Your task to perform on an android device: Open the web browser Image 0: 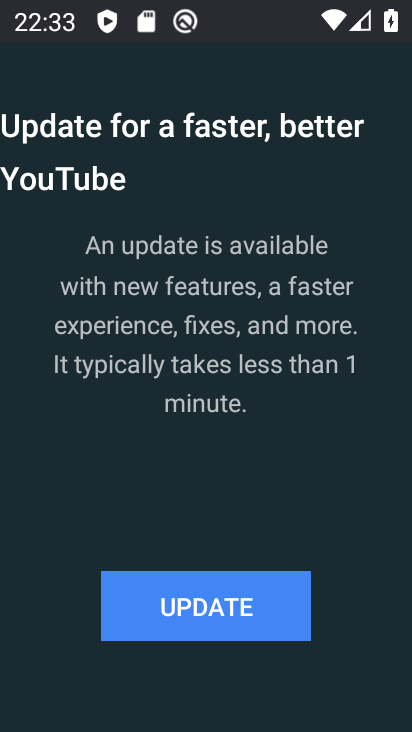
Step 0: press home button
Your task to perform on an android device: Open the web browser Image 1: 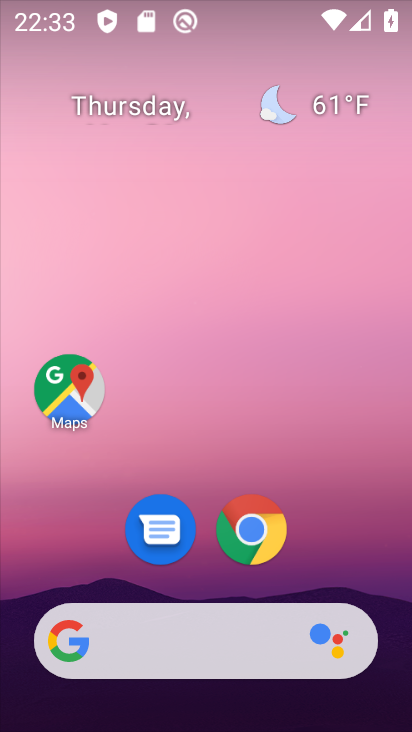
Step 1: click (266, 533)
Your task to perform on an android device: Open the web browser Image 2: 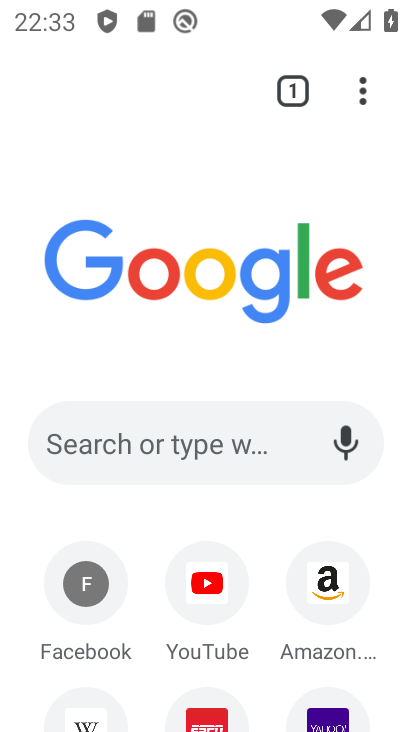
Step 2: task complete